Your task to perform on an android device: Open location settings Image 0: 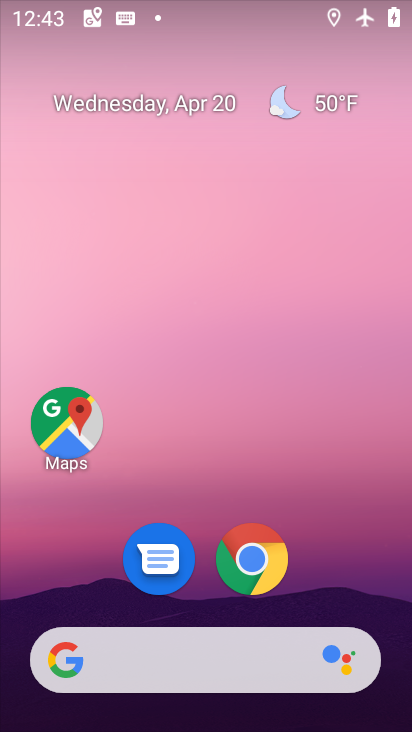
Step 0: drag from (324, 588) to (267, 82)
Your task to perform on an android device: Open location settings Image 1: 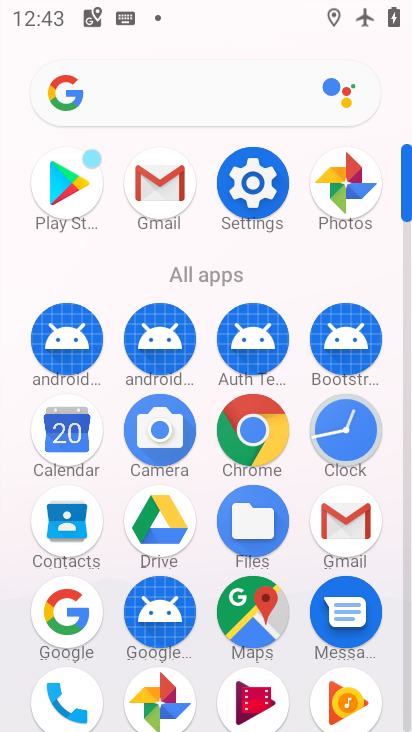
Step 1: click (248, 174)
Your task to perform on an android device: Open location settings Image 2: 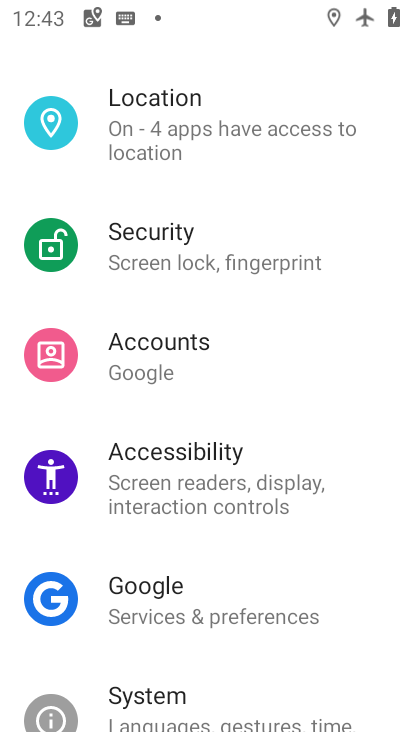
Step 2: click (207, 148)
Your task to perform on an android device: Open location settings Image 3: 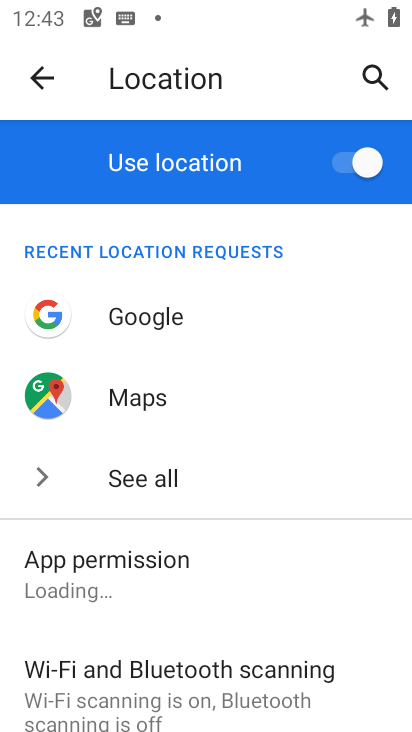
Step 3: drag from (225, 647) to (237, 181)
Your task to perform on an android device: Open location settings Image 4: 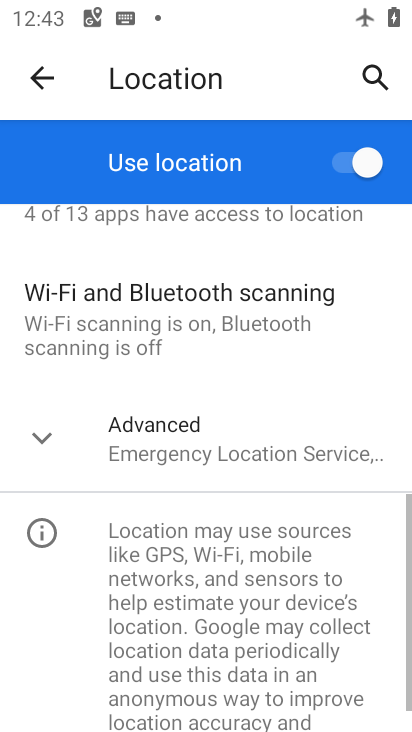
Step 4: click (181, 448)
Your task to perform on an android device: Open location settings Image 5: 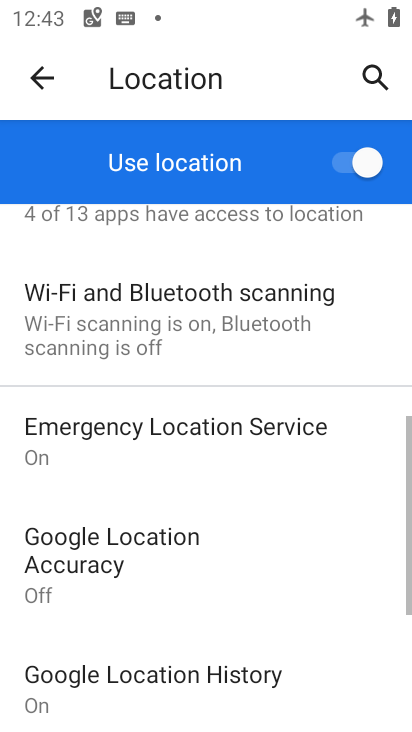
Step 5: task complete